Your task to perform on an android device: Open wifi settings Image 0: 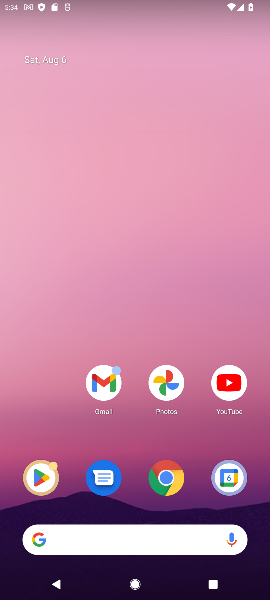
Step 0: press home button
Your task to perform on an android device: Open wifi settings Image 1: 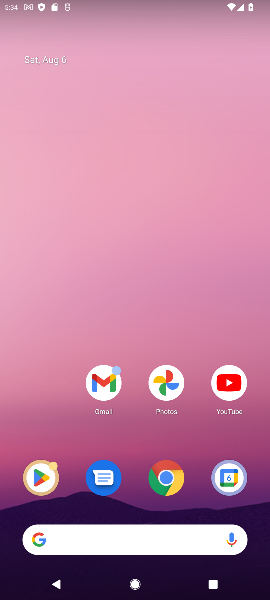
Step 1: drag from (131, 510) to (149, 129)
Your task to perform on an android device: Open wifi settings Image 2: 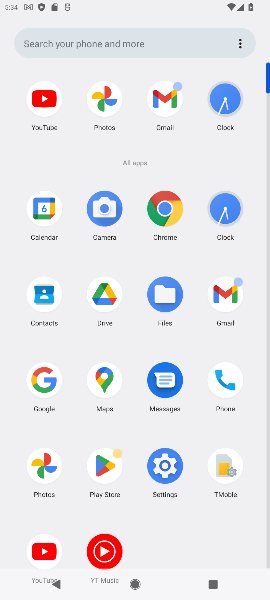
Step 2: click (155, 468)
Your task to perform on an android device: Open wifi settings Image 3: 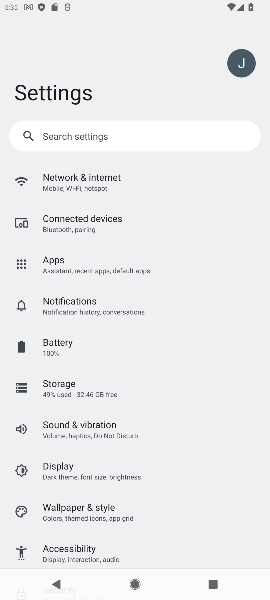
Step 3: click (98, 186)
Your task to perform on an android device: Open wifi settings Image 4: 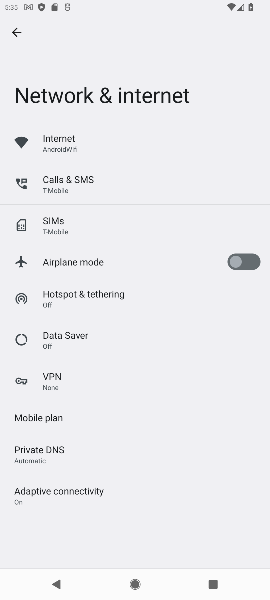
Step 4: click (60, 145)
Your task to perform on an android device: Open wifi settings Image 5: 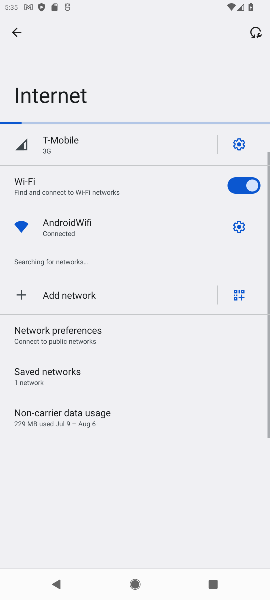
Step 5: click (78, 228)
Your task to perform on an android device: Open wifi settings Image 6: 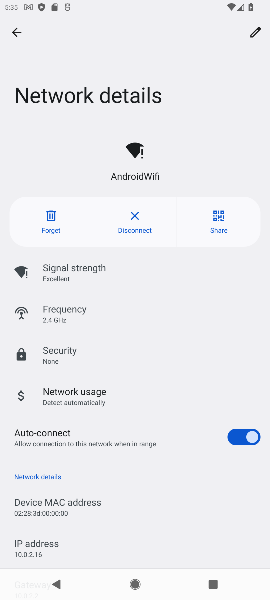
Step 6: task complete